Your task to perform on an android device: add a label to a message in the gmail app Image 0: 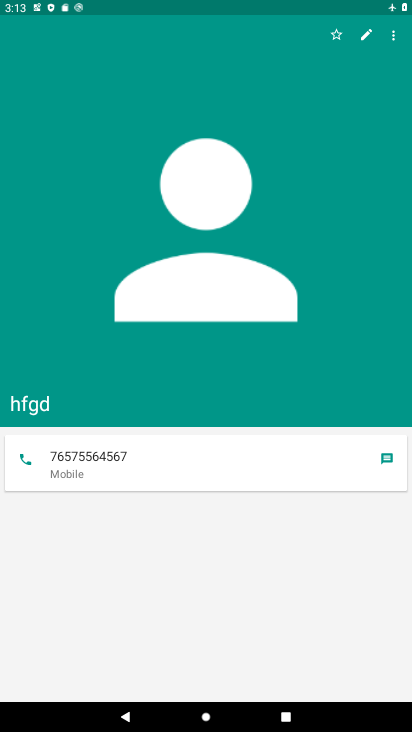
Step 0: press home button
Your task to perform on an android device: add a label to a message in the gmail app Image 1: 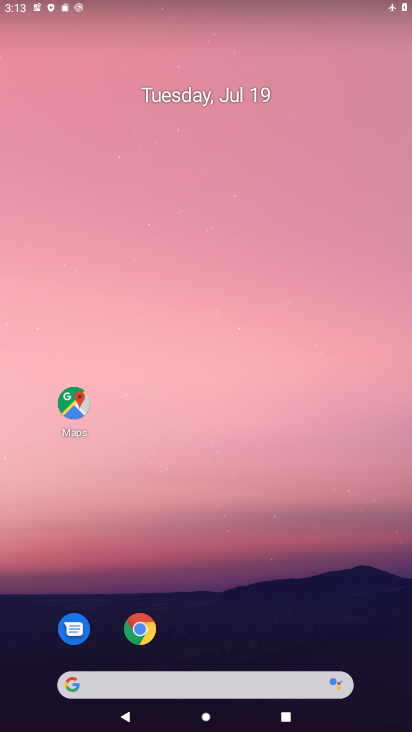
Step 1: drag from (205, 669) to (138, 234)
Your task to perform on an android device: add a label to a message in the gmail app Image 2: 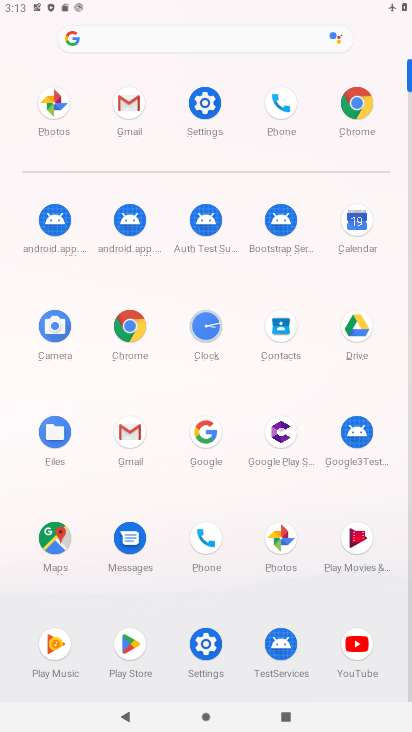
Step 2: click (129, 452)
Your task to perform on an android device: add a label to a message in the gmail app Image 3: 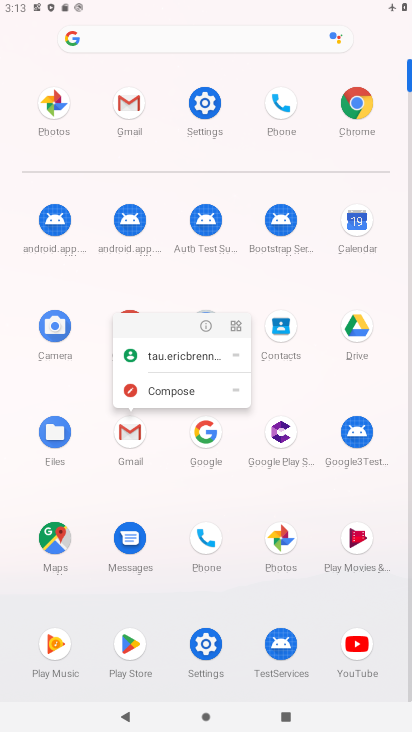
Step 3: click (129, 452)
Your task to perform on an android device: add a label to a message in the gmail app Image 4: 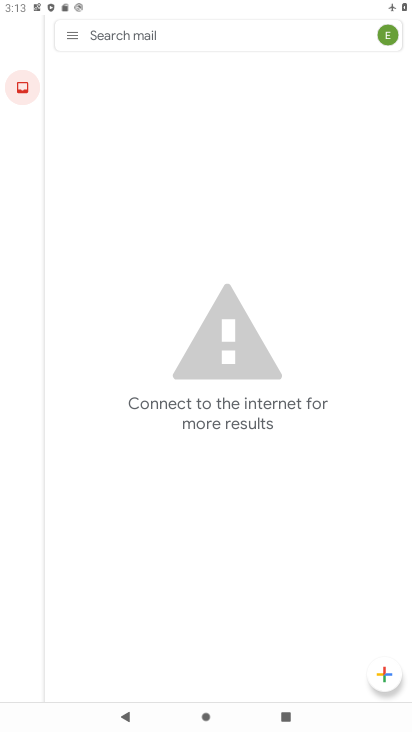
Step 4: click (60, 47)
Your task to perform on an android device: add a label to a message in the gmail app Image 5: 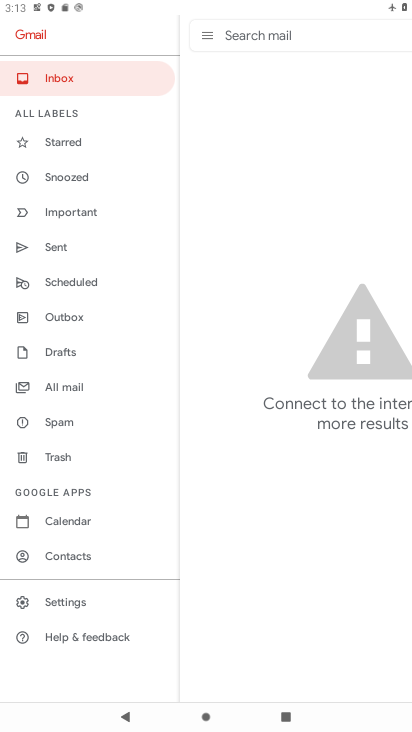
Step 5: click (76, 391)
Your task to perform on an android device: add a label to a message in the gmail app Image 6: 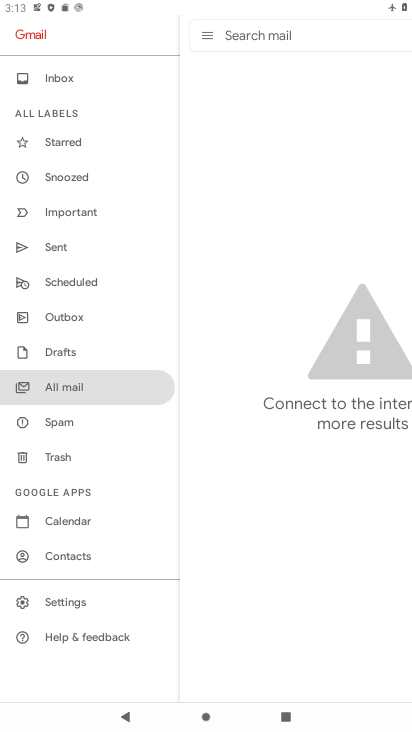
Step 6: task complete